Your task to perform on an android device: Check the weather Image 0: 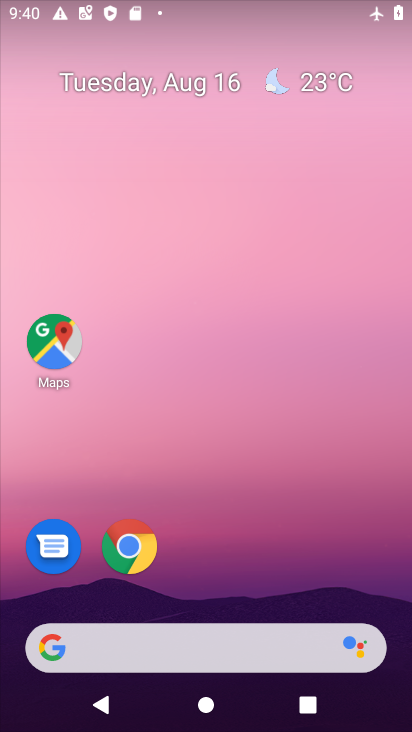
Step 0: click (319, 75)
Your task to perform on an android device: Check the weather Image 1: 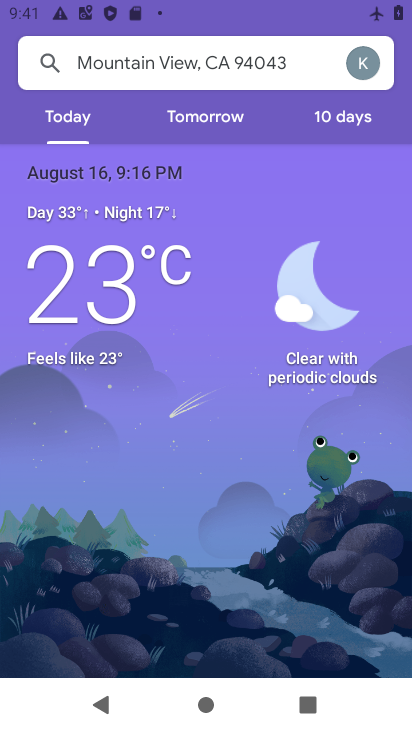
Step 1: task complete